Your task to perform on an android device: Play the last video I watched on Youtube Image 0: 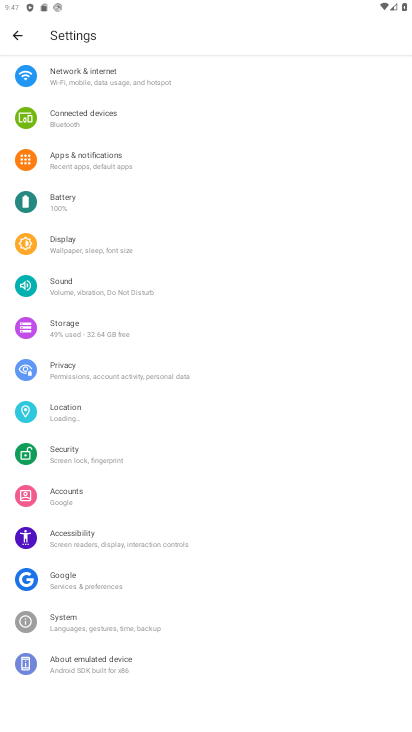
Step 0: press home button
Your task to perform on an android device: Play the last video I watched on Youtube Image 1: 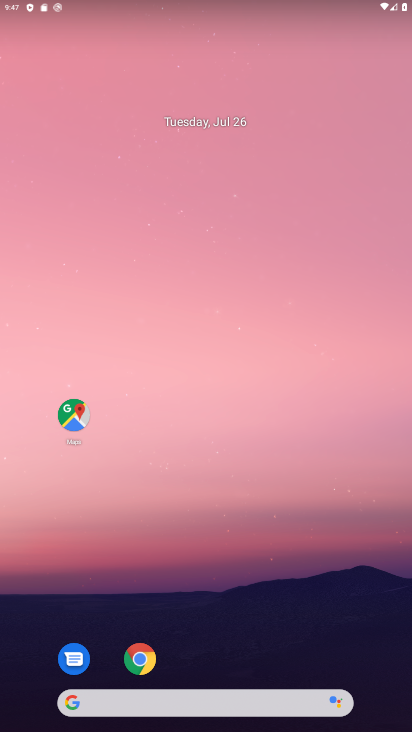
Step 1: drag from (392, 719) to (354, 113)
Your task to perform on an android device: Play the last video I watched on Youtube Image 2: 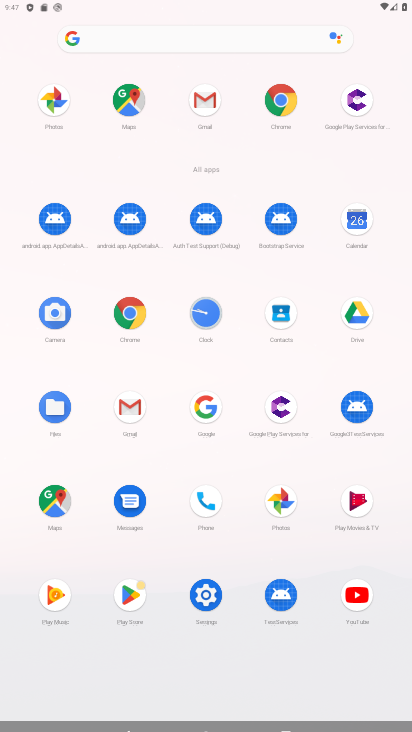
Step 2: click (357, 595)
Your task to perform on an android device: Play the last video I watched on Youtube Image 3: 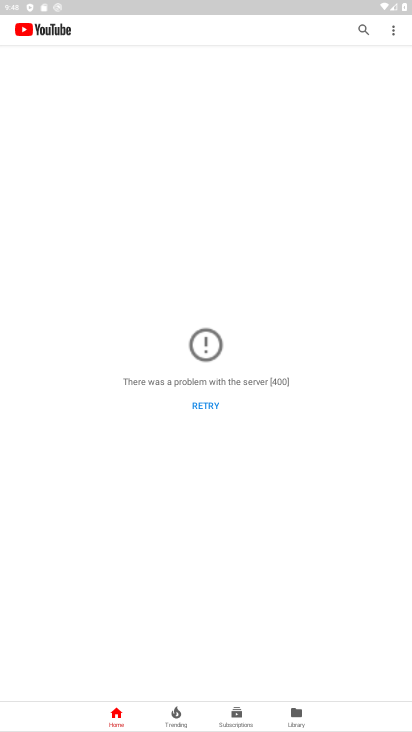
Step 3: click (294, 717)
Your task to perform on an android device: Play the last video I watched on Youtube Image 4: 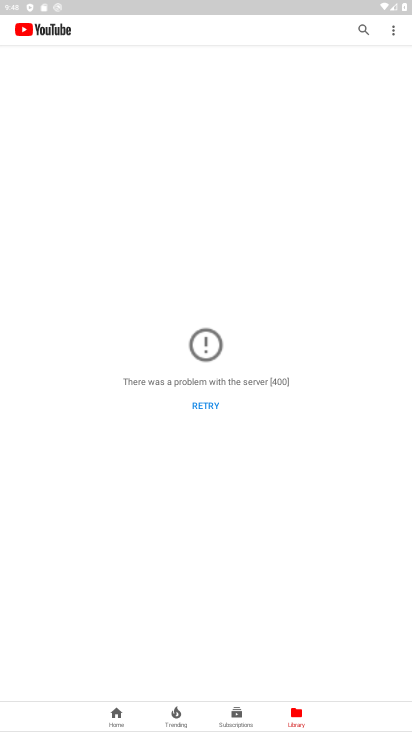
Step 4: task complete